Your task to perform on an android device: Open Maps and search for coffee Image 0: 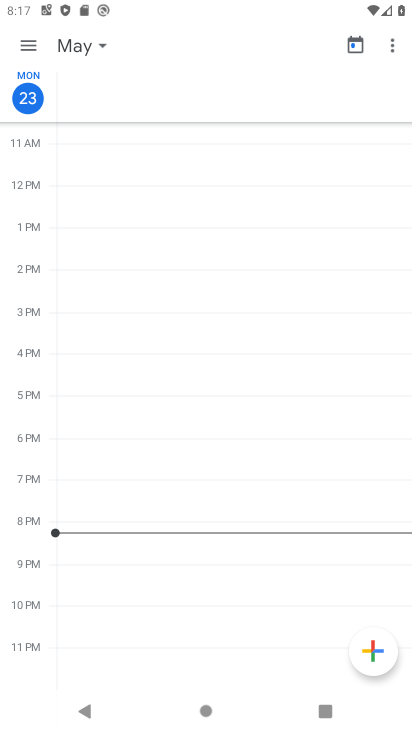
Step 0: press home button
Your task to perform on an android device: Open Maps and search for coffee Image 1: 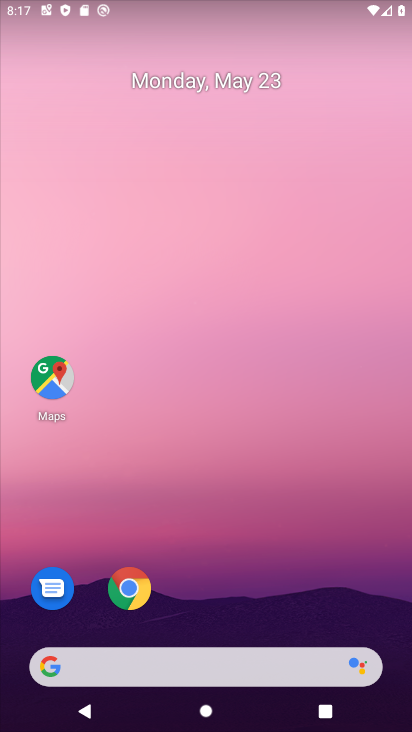
Step 1: click (46, 372)
Your task to perform on an android device: Open Maps and search for coffee Image 2: 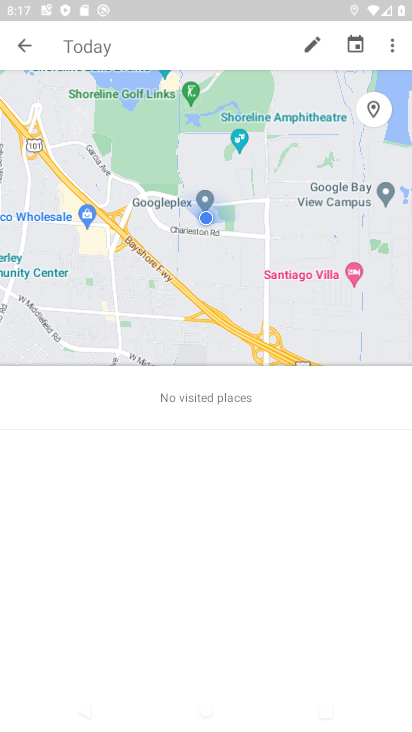
Step 2: click (19, 42)
Your task to perform on an android device: Open Maps and search for coffee Image 3: 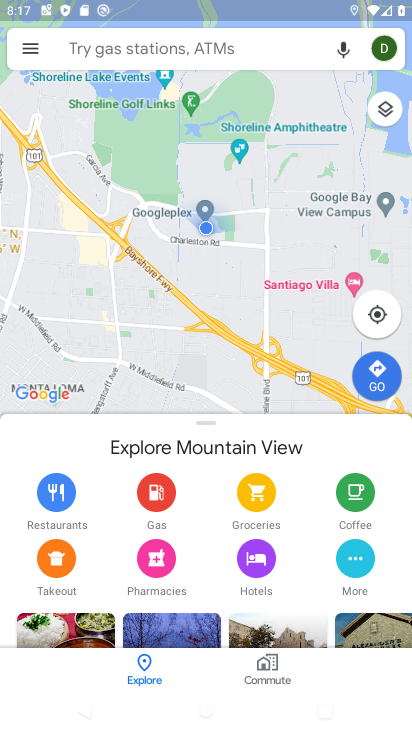
Step 3: click (64, 48)
Your task to perform on an android device: Open Maps and search for coffee Image 4: 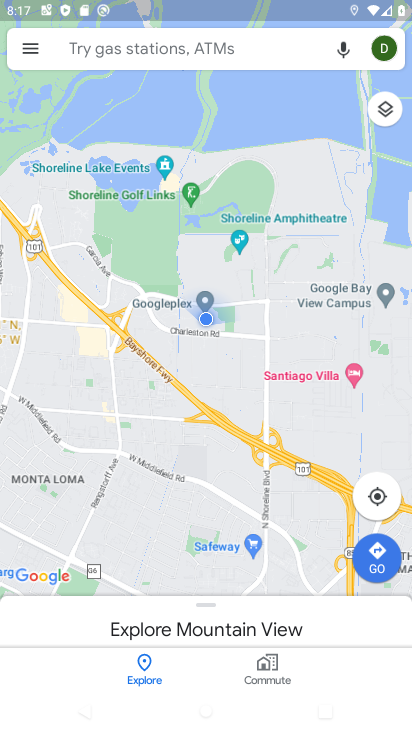
Step 4: click (72, 48)
Your task to perform on an android device: Open Maps and search for coffee Image 5: 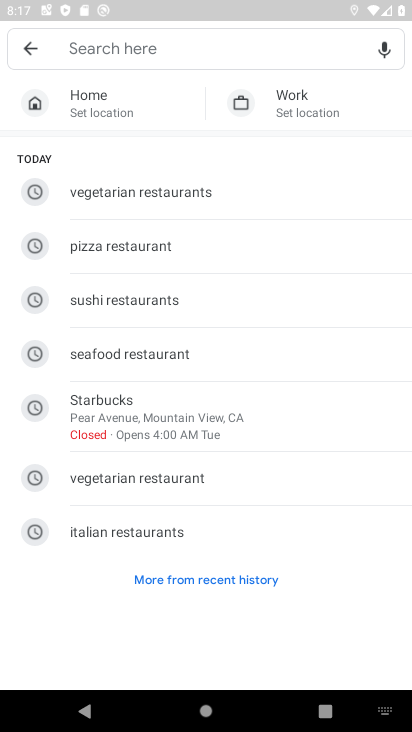
Step 5: type "coffee"
Your task to perform on an android device: Open Maps and search for coffee Image 6: 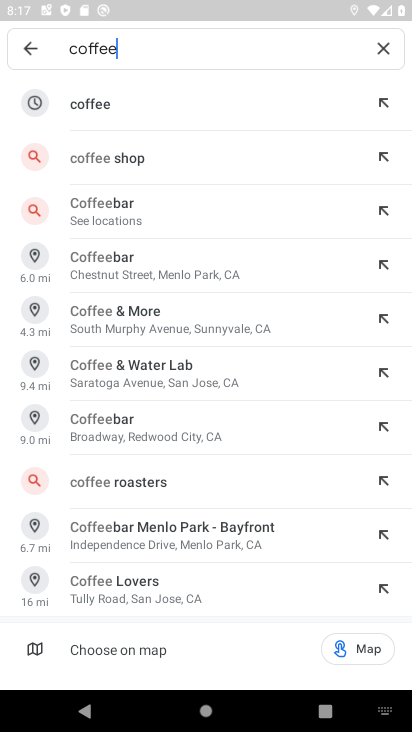
Step 6: click (120, 152)
Your task to perform on an android device: Open Maps and search for coffee Image 7: 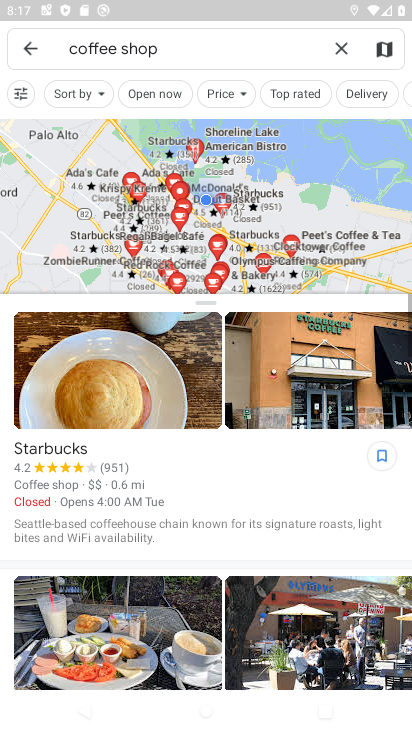
Step 7: task complete